Your task to perform on an android device: check android version Image 0: 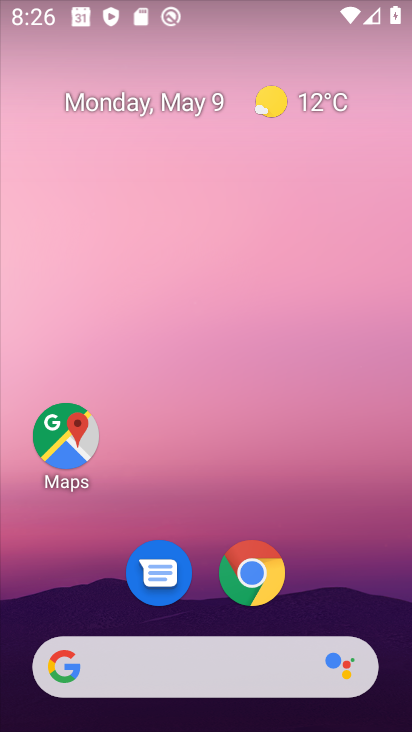
Step 0: drag from (248, 650) to (218, 142)
Your task to perform on an android device: check android version Image 1: 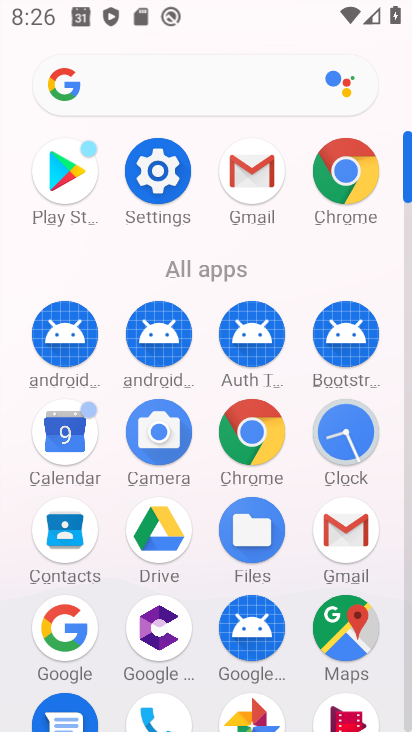
Step 1: click (173, 195)
Your task to perform on an android device: check android version Image 2: 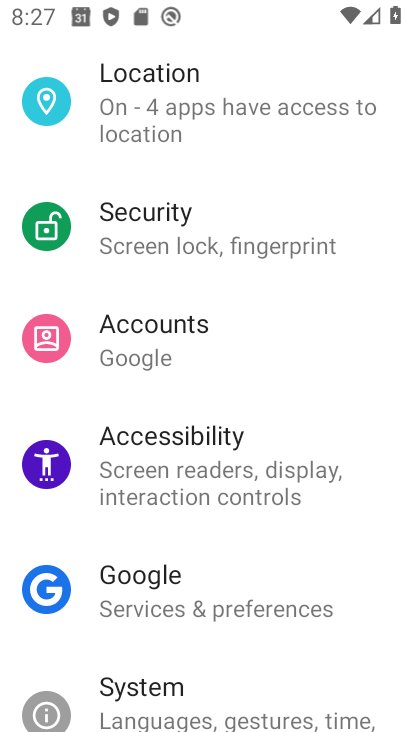
Step 2: drag from (249, 582) to (279, 530)
Your task to perform on an android device: check android version Image 3: 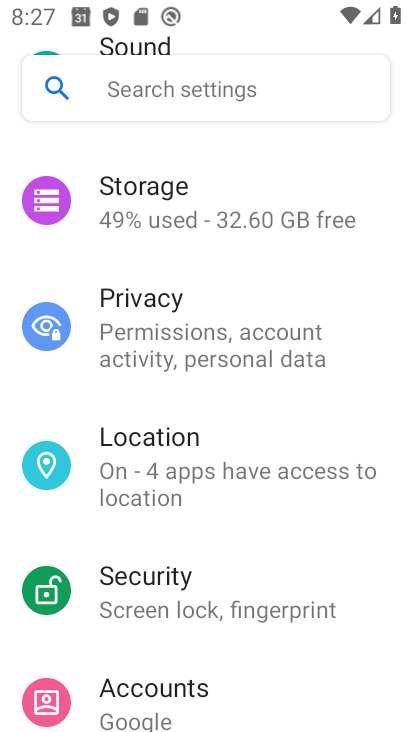
Step 3: drag from (180, 446) to (269, 107)
Your task to perform on an android device: check android version Image 4: 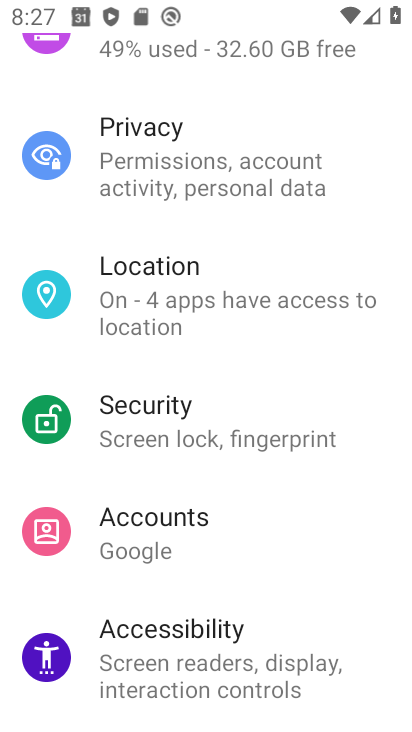
Step 4: drag from (221, 484) to (241, 5)
Your task to perform on an android device: check android version Image 5: 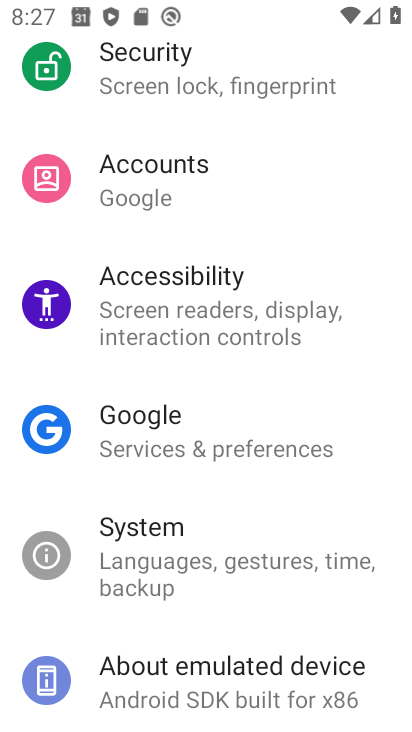
Step 5: click (269, 685)
Your task to perform on an android device: check android version Image 6: 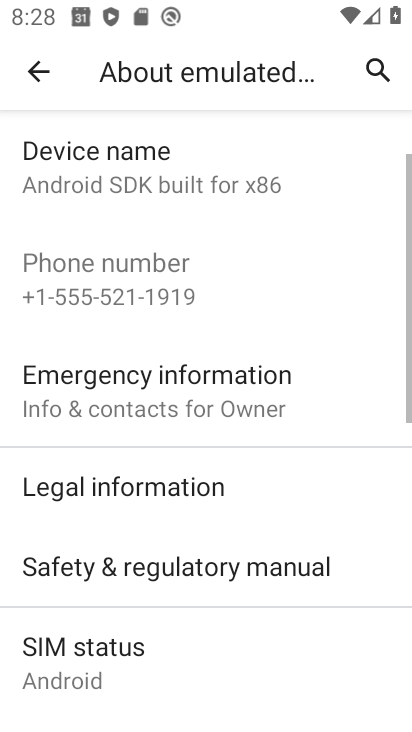
Step 6: drag from (323, 577) to (104, 25)
Your task to perform on an android device: check android version Image 7: 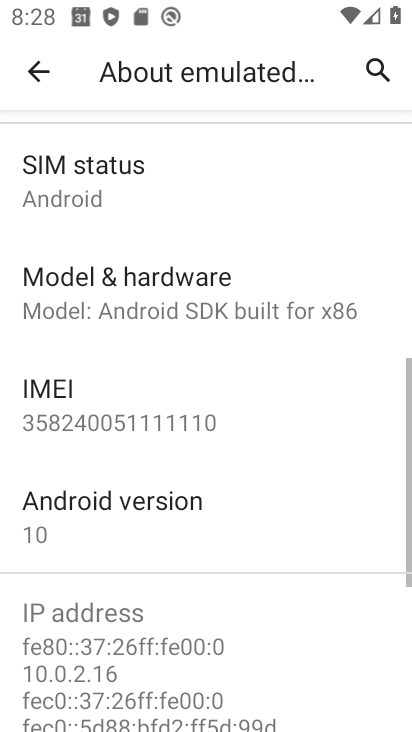
Step 7: click (112, 515)
Your task to perform on an android device: check android version Image 8: 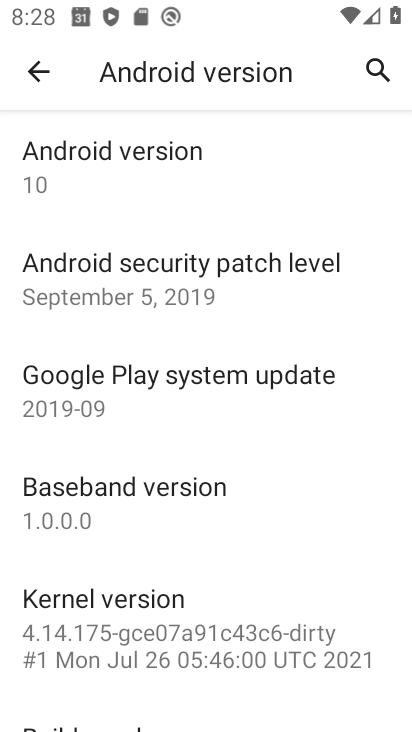
Step 8: task complete